Your task to perform on an android device: Show me popular videos on Youtube Image 0: 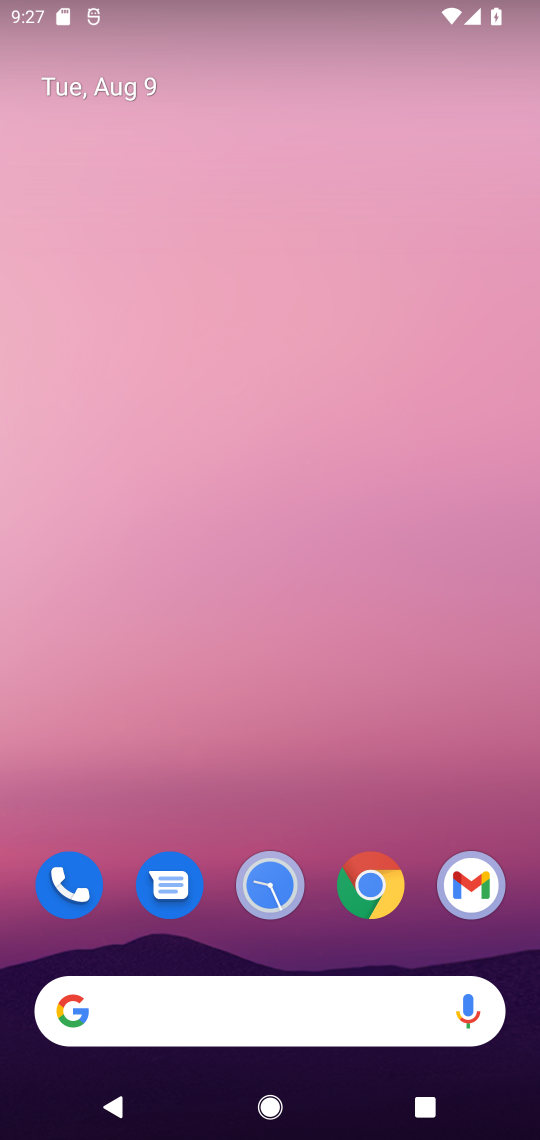
Step 0: drag from (246, 1011) to (180, 282)
Your task to perform on an android device: Show me popular videos on Youtube Image 1: 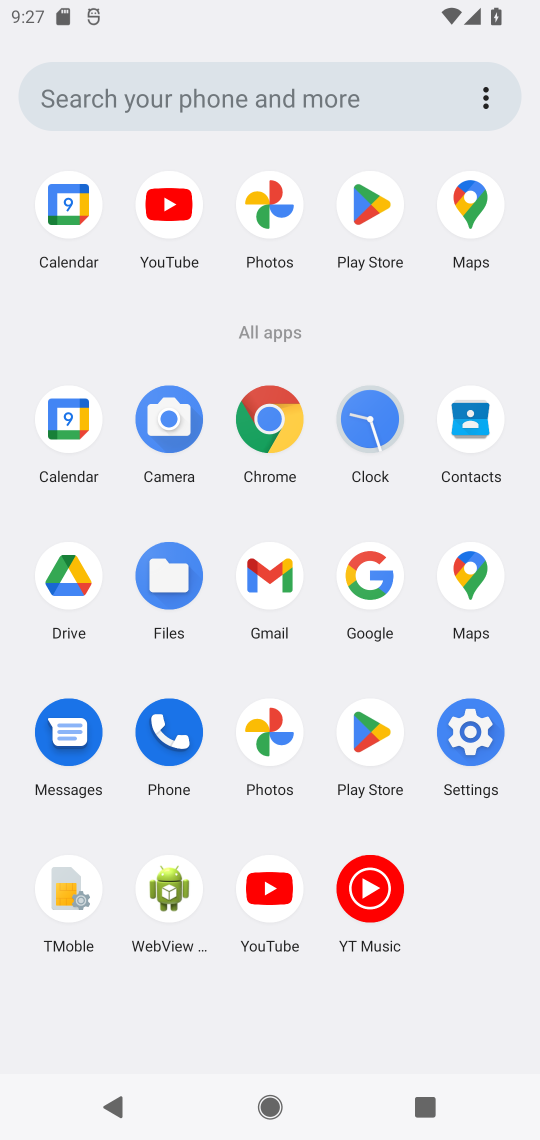
Step 1: click (266, 895)
Your task to perform on an android device: Show me popular videos on Youtube Image 2: 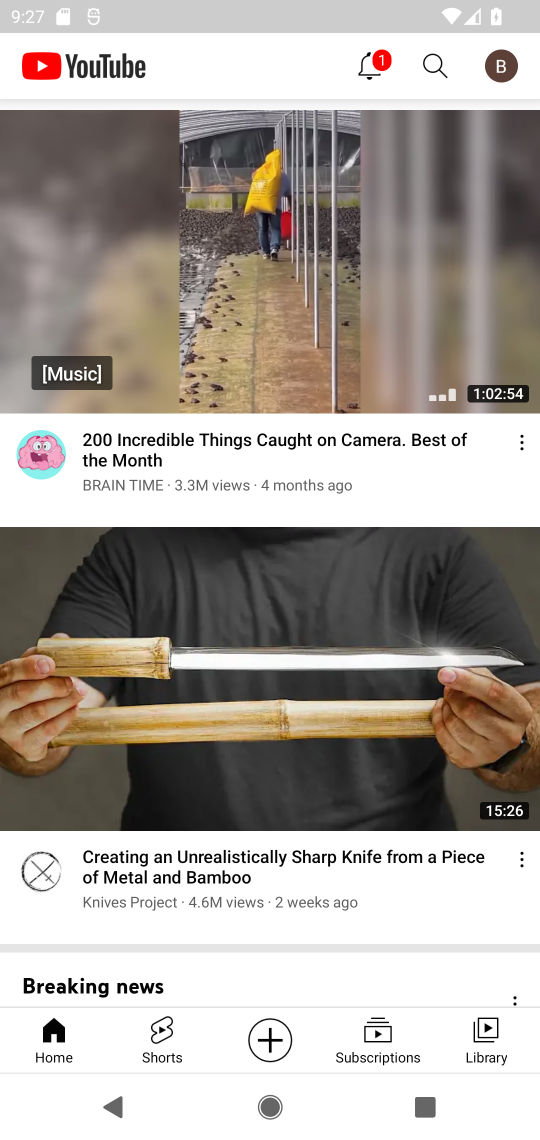
Step 2: drag from (274, 246) to (311, 788)
Your task to perform on an android device: Show me popular videos on Youtube Image 3: 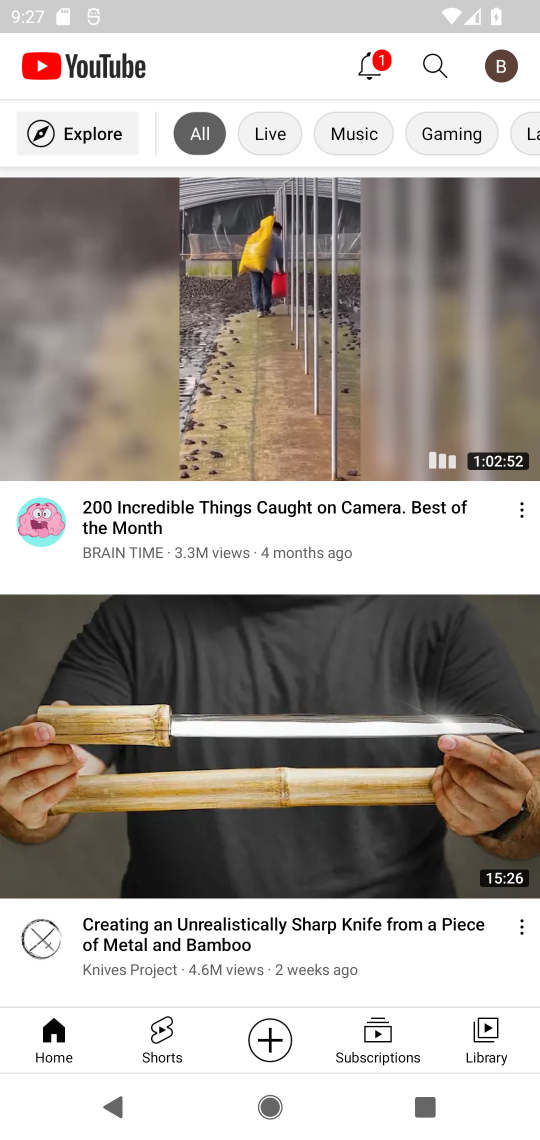
Step 3: click (86, 130)
Your task to perform on an android device: Show me popular videos on Youtube Image 4: 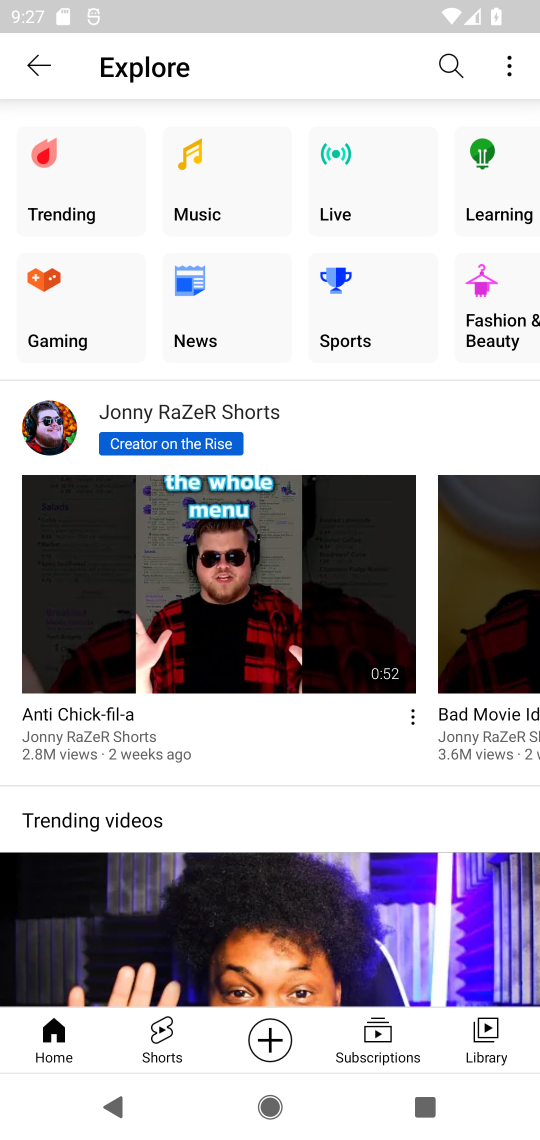
Step 4: click (86, 190)
Your task to perform on an android device: Show me popular videos on Youtube Image 5: 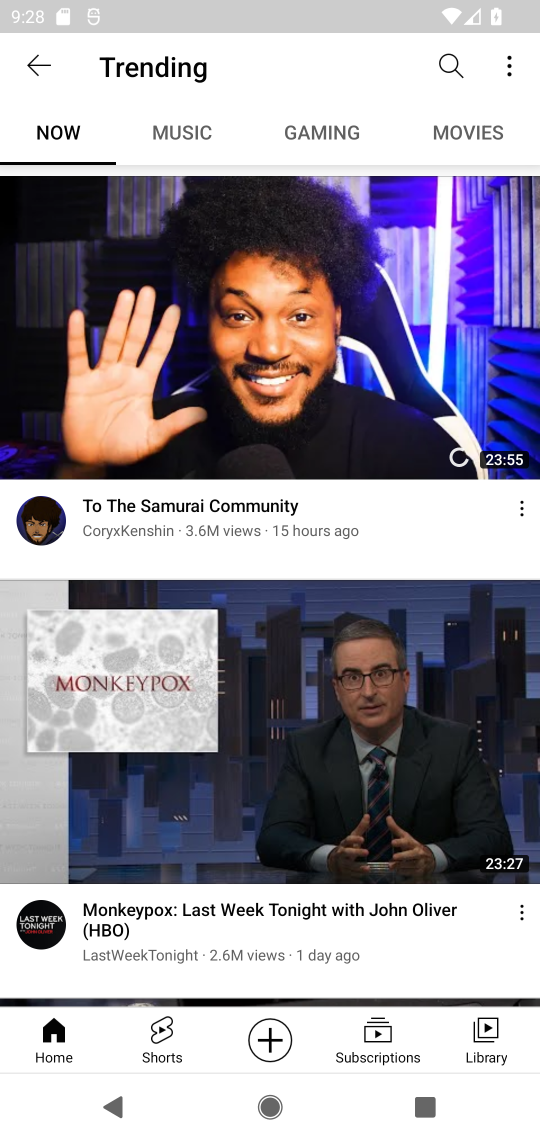
Step 5: task complete